Your task to perform on an android device: toggle data saver in the chrome app Image 0: 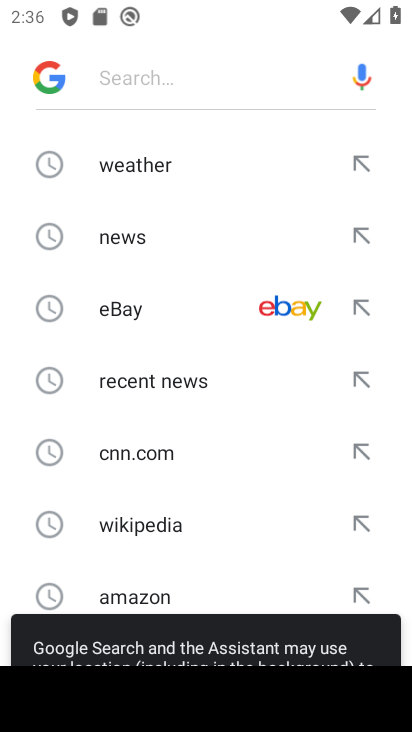
Step 0: press home button
Your task to perform on an android device: toggle data saver in the chrome app Image 1: 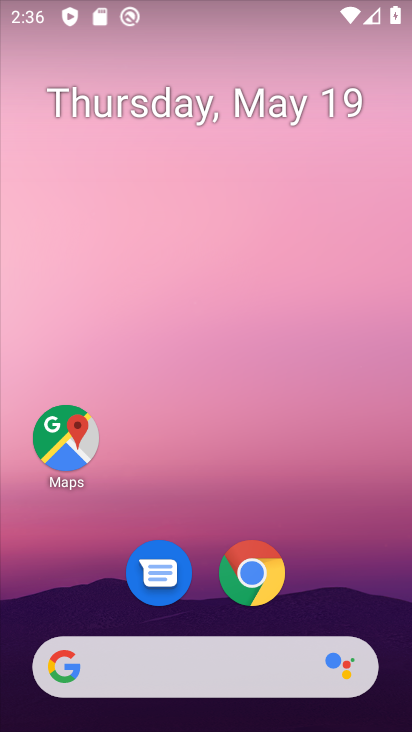
Step 1: click (250, 578)
Your task to perform on an android device: toggle data saver in the chrome app Image 2: 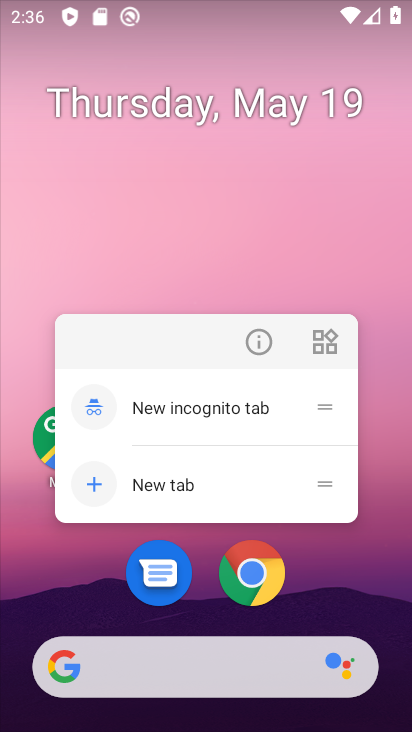
Step 2: click (250, 578)
Your task to perform on an android device: toggle data saver in the chrome app Image 3: 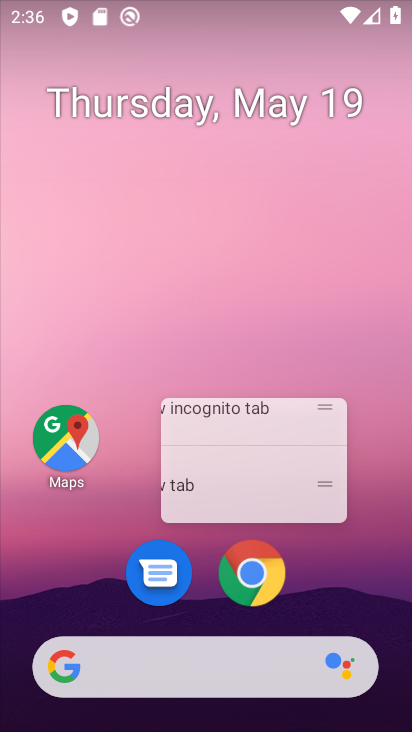
Step 3: click (250, 578)
Your task to perform on an android device: toggle data saver in the chrome app Image 4: 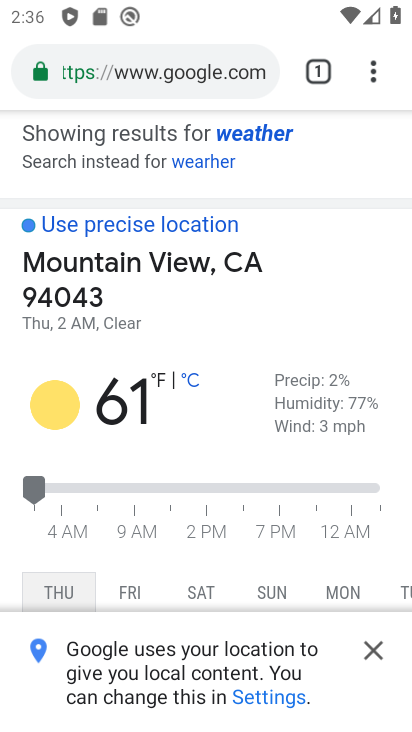
Step 4: click (374, 63)
Your task to perform on an android device: toggle data saver in the chrome app Image 5: 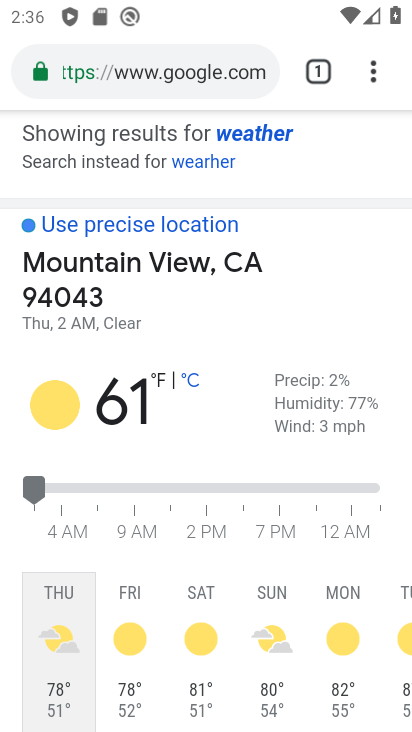
Step 5: click (371, 64)
Your task to perform on an android device: toggle data saver in the chrome app Image 6: 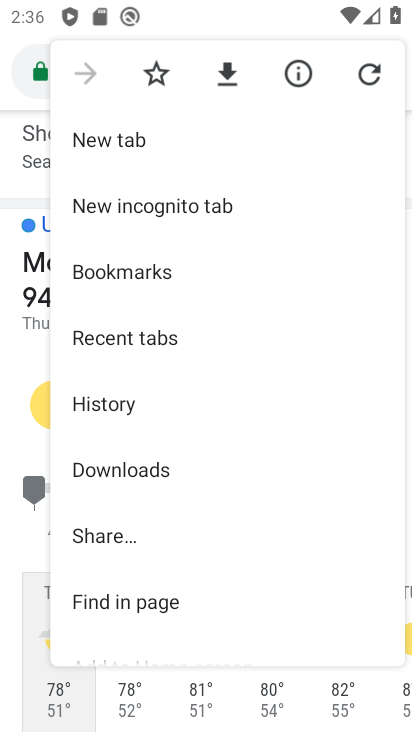
Step 6: drag from (170, 536) to (329, 117)
Your task to perform on an android device: toggle data saver in the chrome app Image 7: 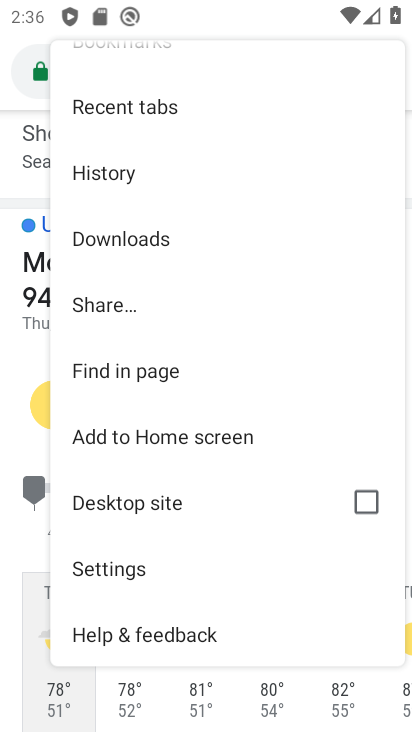
Step 7: click (137, 575)
Your task to perform on an android device: toggle data saver in the chrome app Image 8: 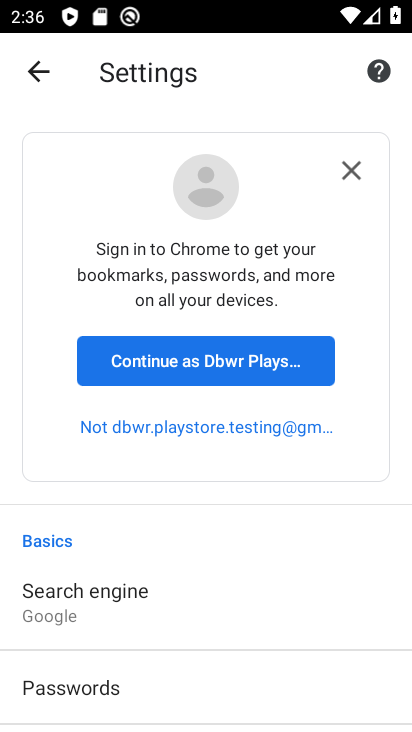
Step 8: drag from (137, 575) to (228, 203)
Your task to perform on an android device: toggle data saver in the chrome app Image 9: 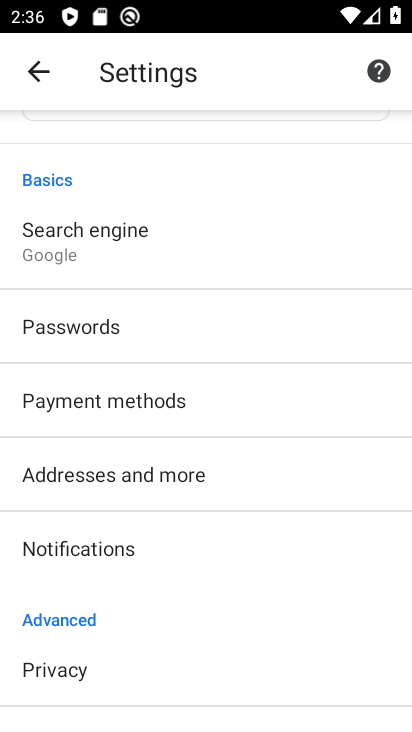
Step 9: drag from (167, 612) to (317, 206)
Your task to perform on an android device: toggle data saver in the chrome app Image 10: 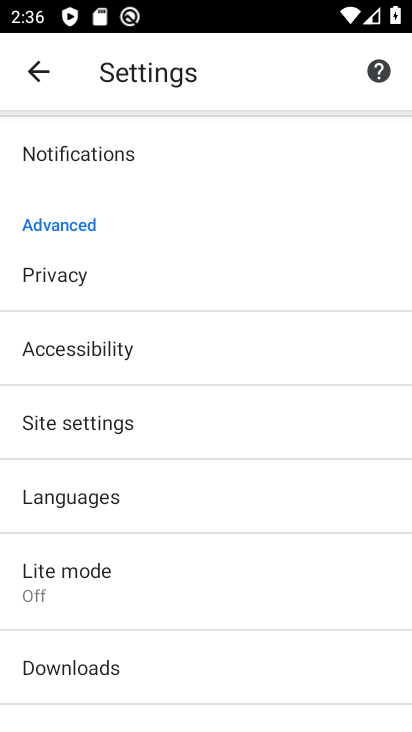
Step 10: click (66, 577)
Your task to perform on an android device: toggle data saver in the chrome app Image 11: 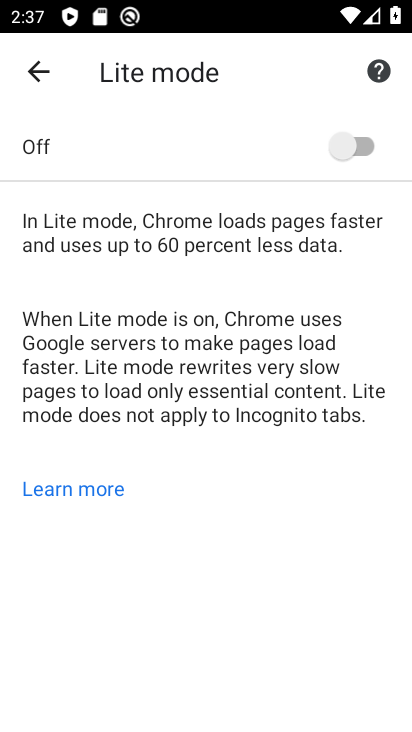
Step 11: click (364, 138)
Your task to perform on an android device: toggle data saver in the chrome app Image 12: 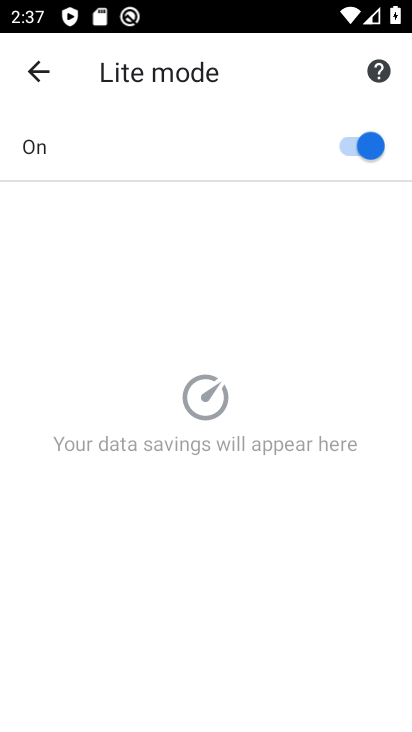
Step 12: task complete